Your task to perform on an android device: turn on javascript in the chrome app Image 0: 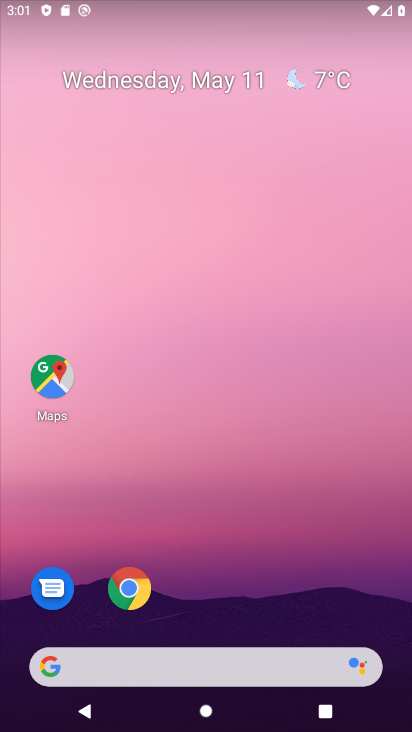
Step 0: click (131, 592)
Your task to perform on an android device: turn on javascript in the chrome app Image 1: 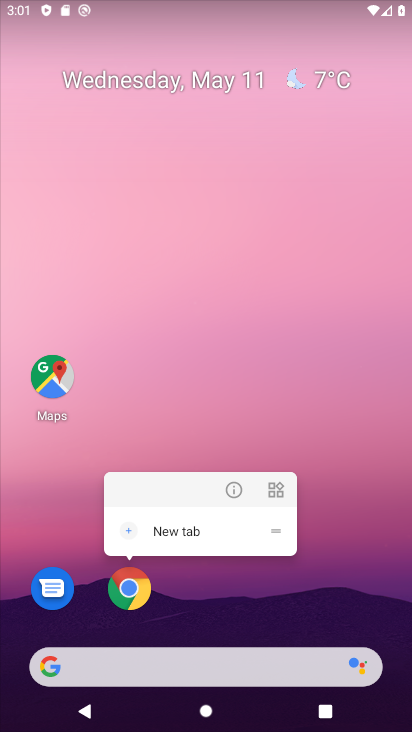
Step 1: click (124, 592)
Your task to perform on an android device: turn on javascript in the chrome app Image 2: 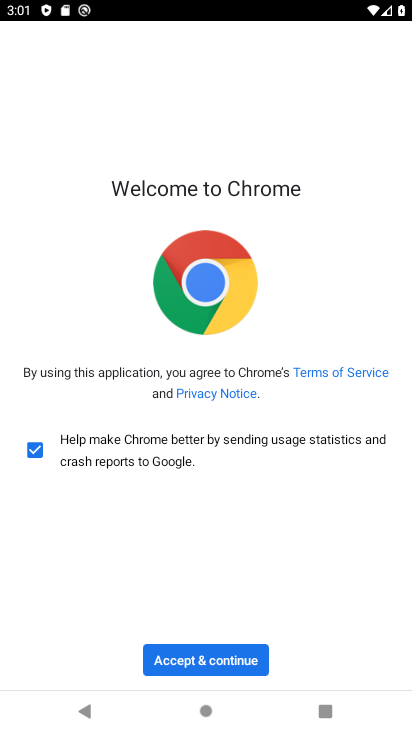
Step 2: click (224, 661)
Your task to perform on an android device: turn on javascript in the chrome app Image 3: 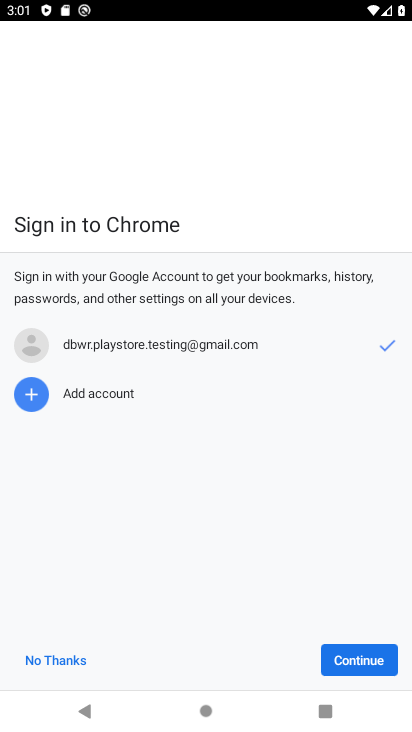
Step 3: click (340, 652)
Your task to perform on an android device: turn on javascript in the chrome app Image 4: 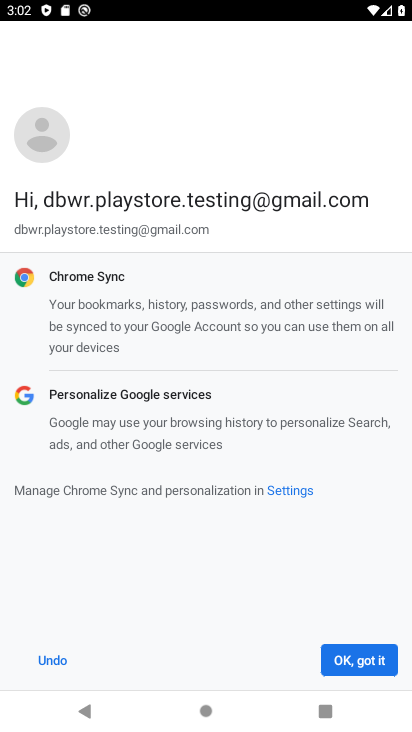
Step 4: click (340, 652)
Your task to perform on an android device: turn on javascript in the chrome app Image 5: 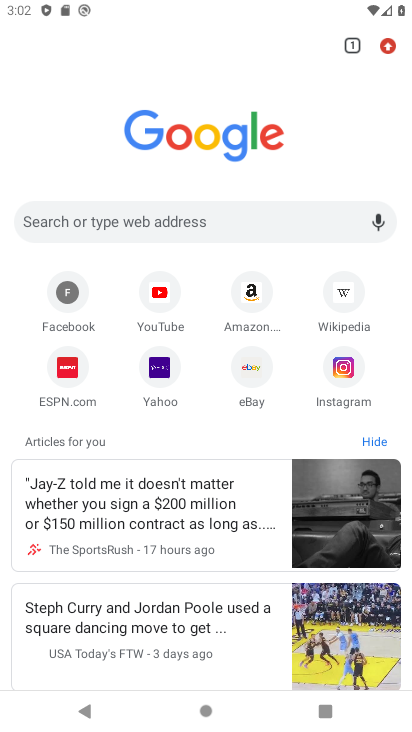
Step 5: click (386, 50)
Your task to perform on an android device: turn on javascript in the chrome app Image 6: 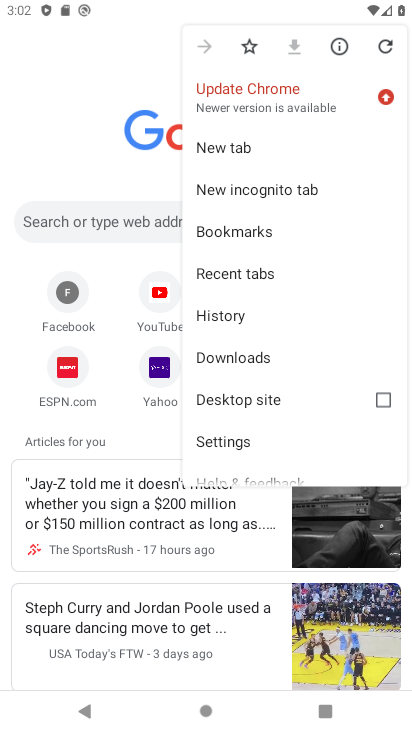
Step 6: click (232, 439)
Your task to perform on an android device: turn on javascript in the chrome app Image 7: 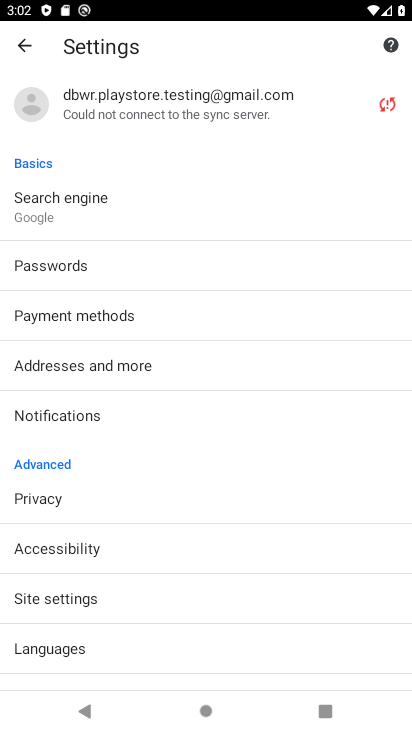
Step 7: click (61, 599)
Your task to perform on an android device: turn on javascript in the chrome app Image 8: 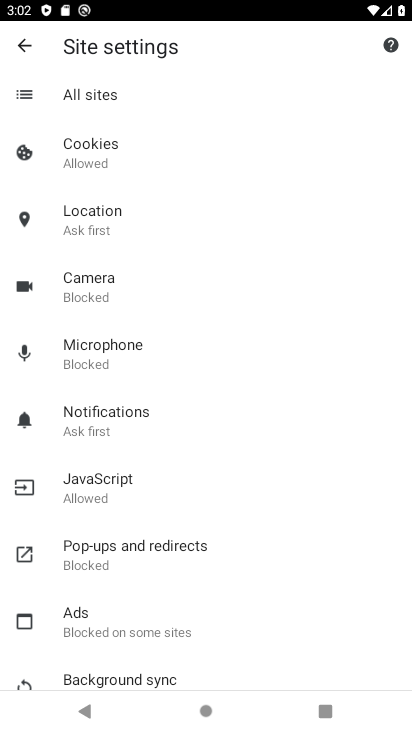
Step 8: click (83, 476)
Your task to perform on an android device: turn on javascript in the chrome app Image 9: 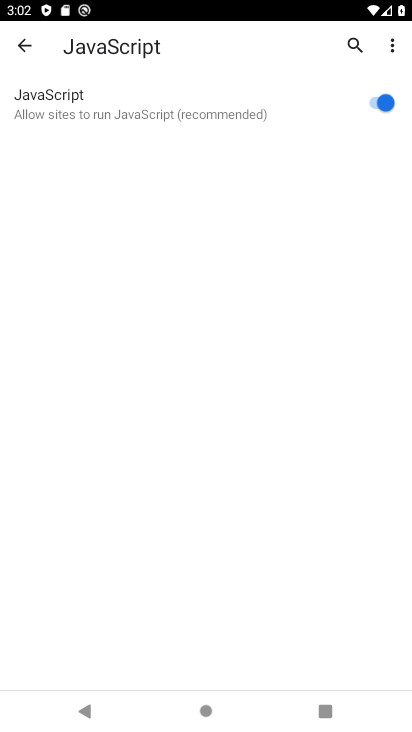
Step 9: task complete